Your task to perform on an android device: Open settings Image 0: 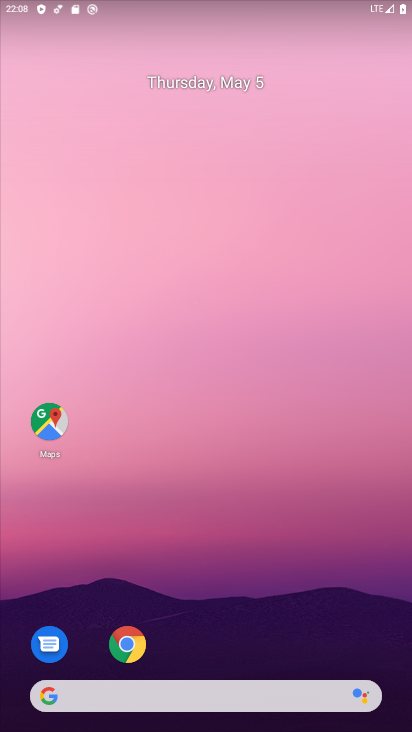
Step 0: drag from (202, 666) to (245, 25)
Your task to perform on an android device: Open settings Image 1: 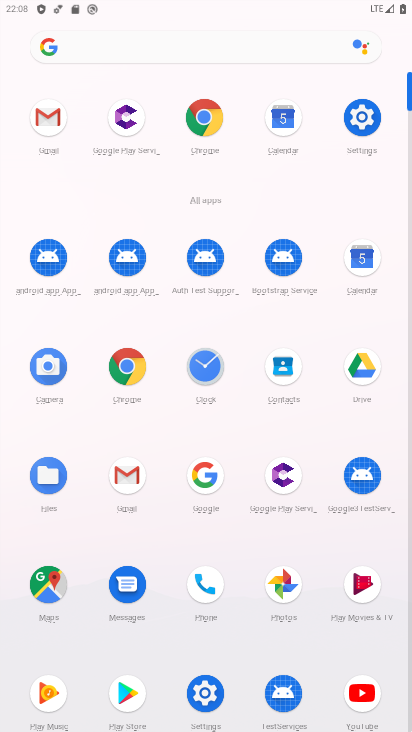
Step 1: click (357, 115)
Your task to perform on an android device: Open settings Image 2: 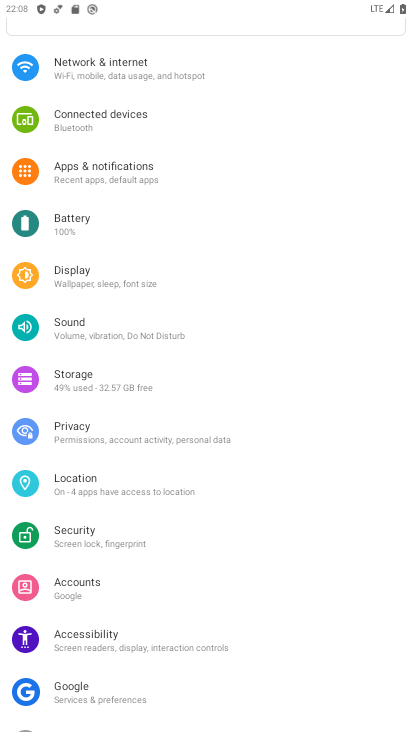
Step 2: task complete